Your task to perform on an android device: Go to display settings Image 0: 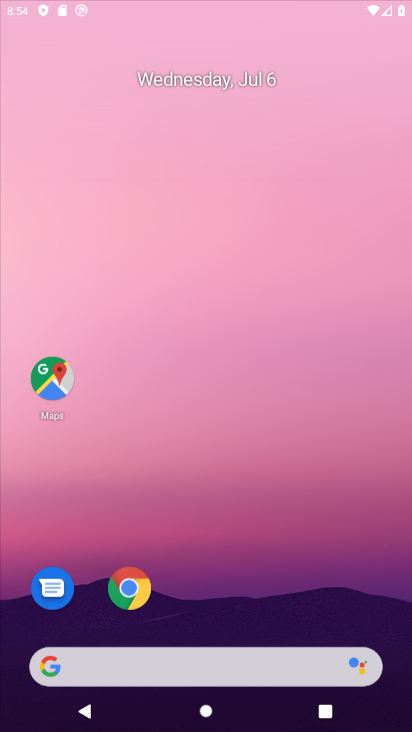
Step 0: click (224, 35)
Your task to perform on an android device: Go to display settings Image 1: 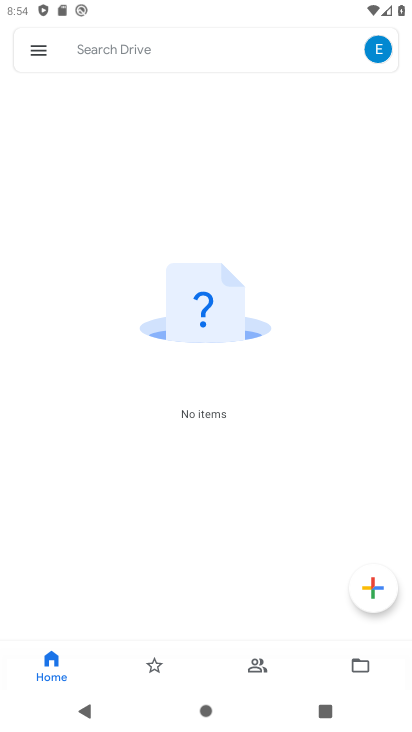
Step 1: press home button
Your task to perform on an android device: Go to display settings Image 2: 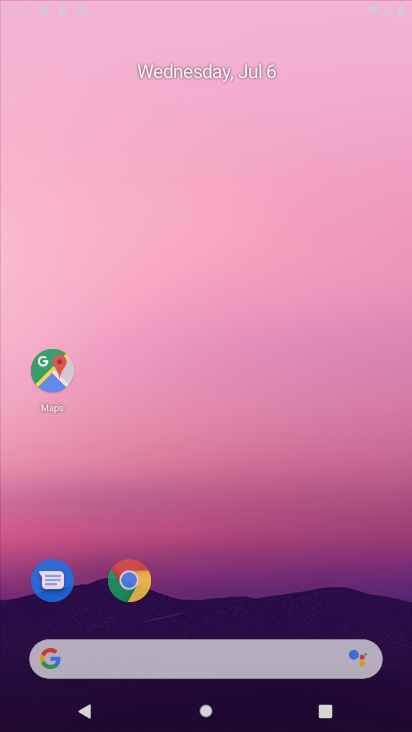
Step 2: drag from (196, 624) to (209, 164)
Your task to perform on an android device: Go to display settings Image 3: 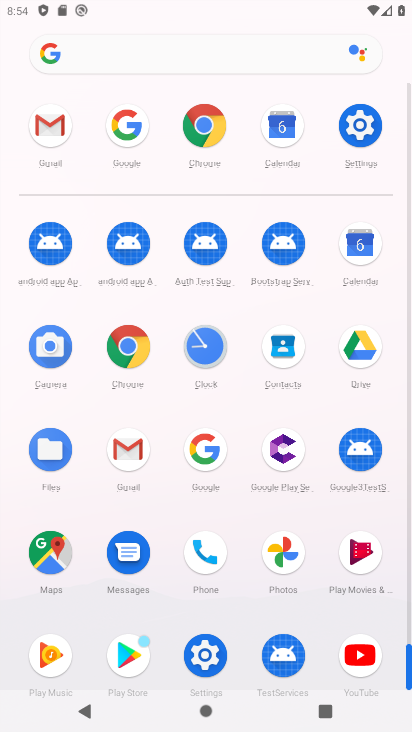
Step 3: click (377, 121)
Your task to perform on an android device: Go to display settings Image 4: 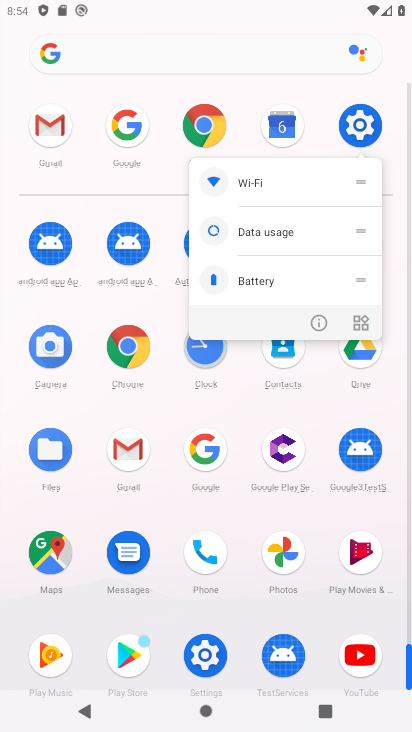
Step 4: click (324, 314)
Your task to perform on an android device: Go to display settings Image 5: 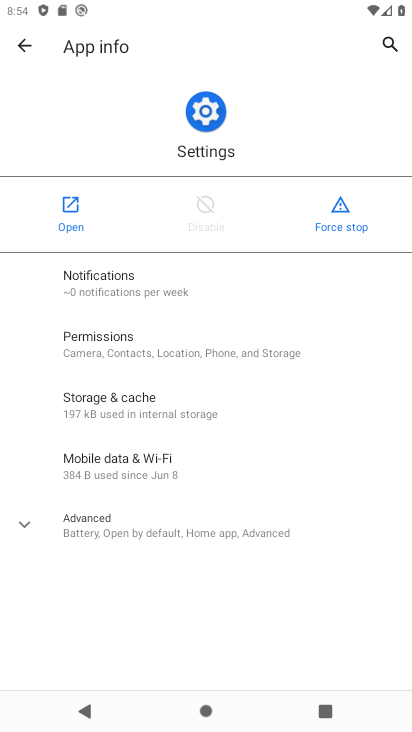
Step 5: click (322, 319)
Your task to perform on an android device: Go to display settings Image 6: 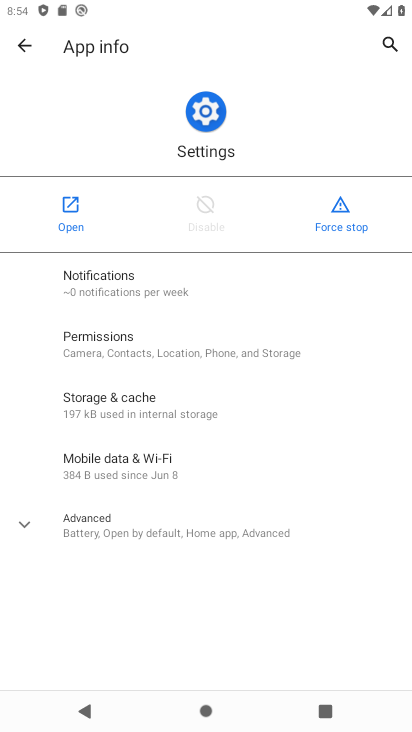
Step 6: click (75, 213)
Your task to perform on an android device: Go to display settings Image 7: 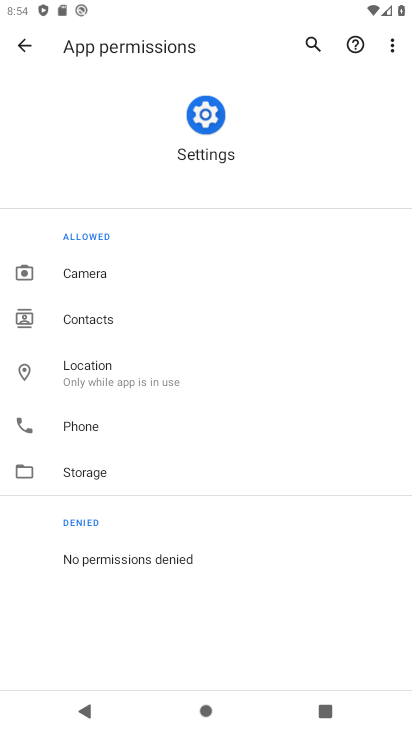
Step 7: click (30, 49)
Your task to perform on an android device: Go to display settings Image 8: 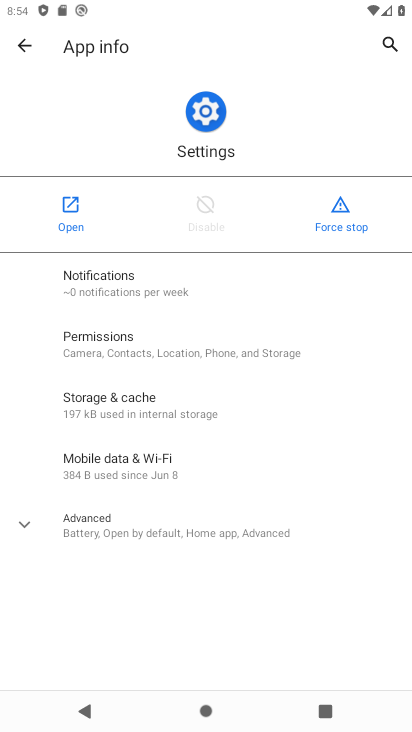
Step 8: click (74, 220)
Your task to perform on an android device: Go to display settings Image 9: 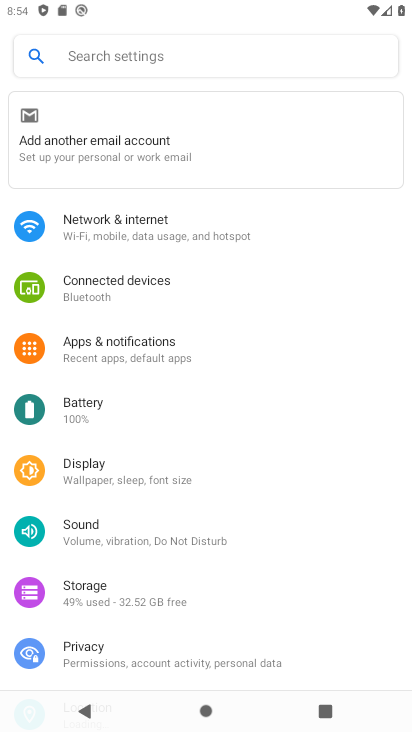
Step 9: click (102, 474)
Your task to perform on an android device: Go to display settings Image 10: 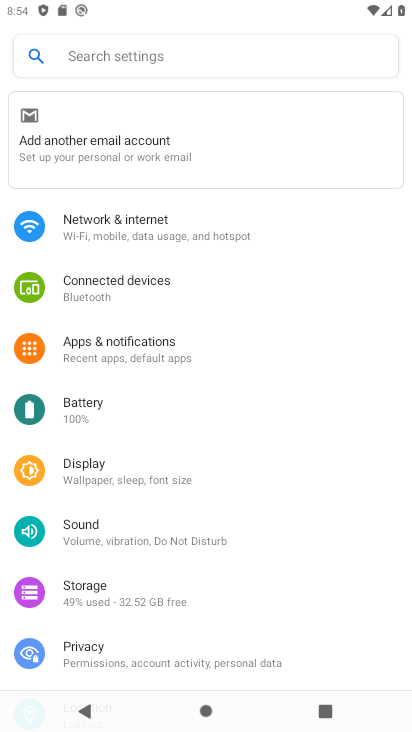
Step 10: click (102, 474)
Your task to perform on an android device: Go to display settings Image 11: 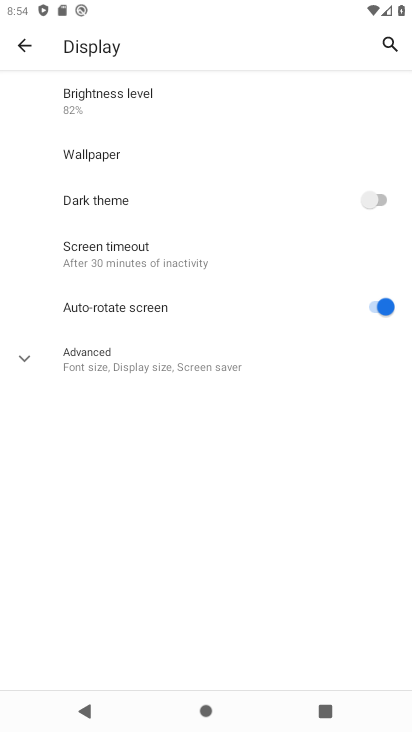
Step 11: task complete